Your task to perform on an android device: see tabs open on other devices in the chrome app Image 0: 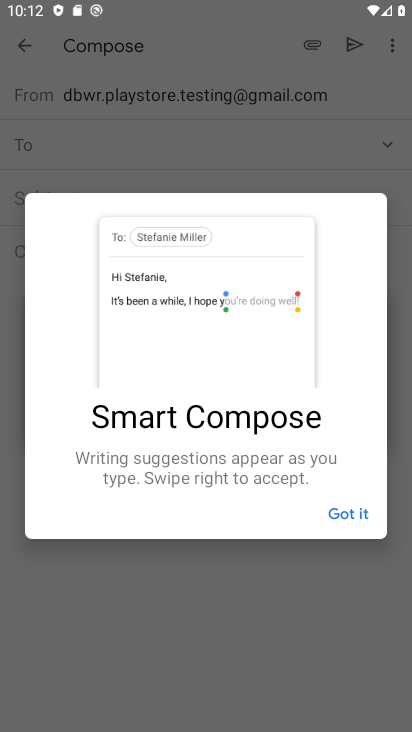
Step 0: press home button
Your task to perform on an android device: see tabs open on other devices in the chrome app Image 1: 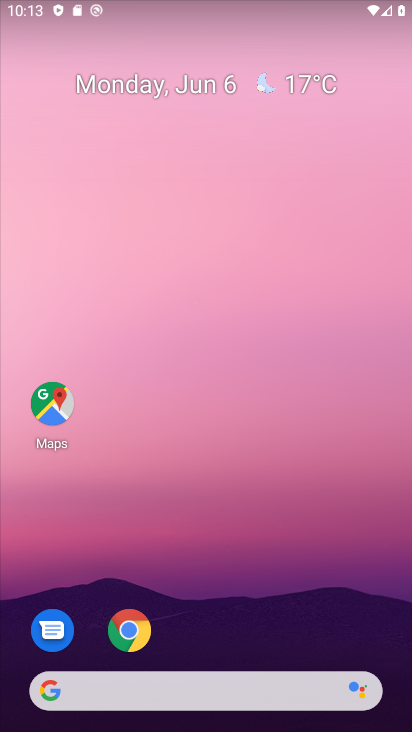
Step 1: drag from (368, 634) to (368, 101)
Your task to perform on an android device: see tabs open on other devices in the chrome app Image 2: 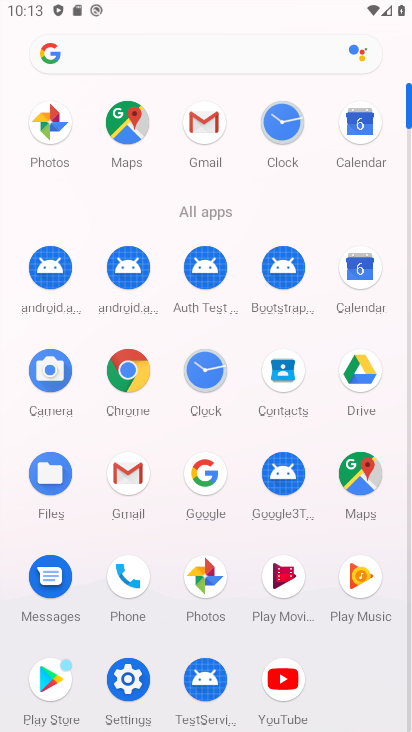
Step 2: click (137, 393)
Your task to perform on an android device: see tabs open on other devices in the chrome app Image 3: 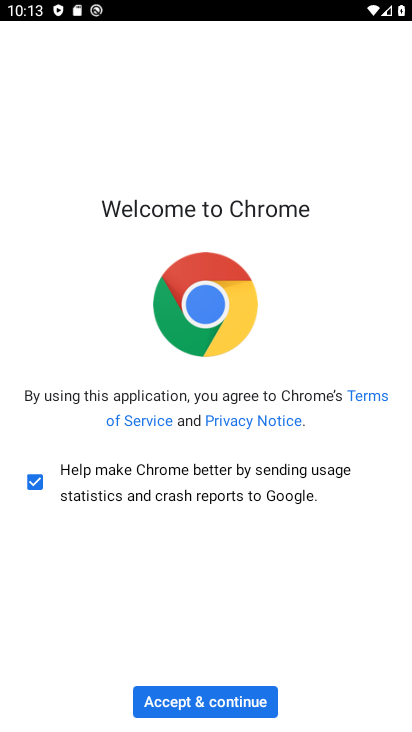
Step 3: click (259, 712)
Your task to perform on an android device: see tabs open on other devices in the chrome app Image 4: 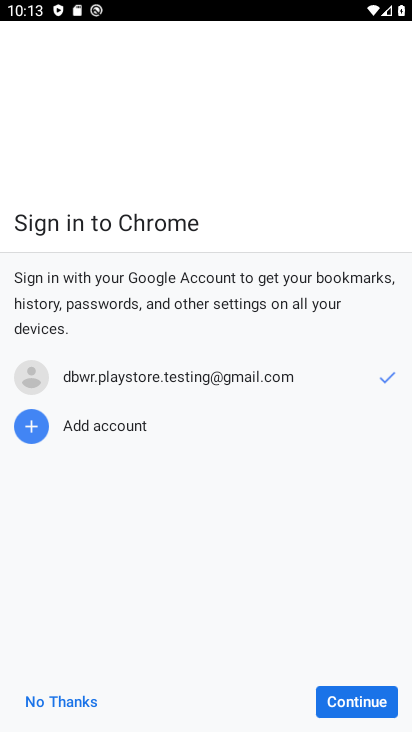
Step 4: click (339, 704)
Your task to perform on an android device: see tabs open on other devices in the chrome app Image 5: 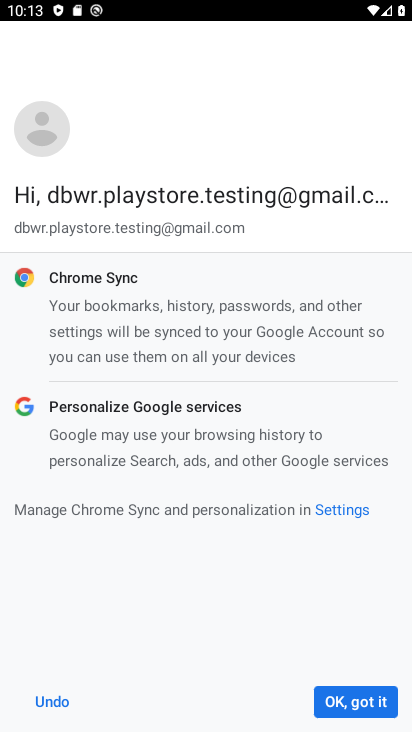
Step 5: click (339, 700)
Your task to perform on an android device: see tabs open on other devices in the chrome app Image 6: 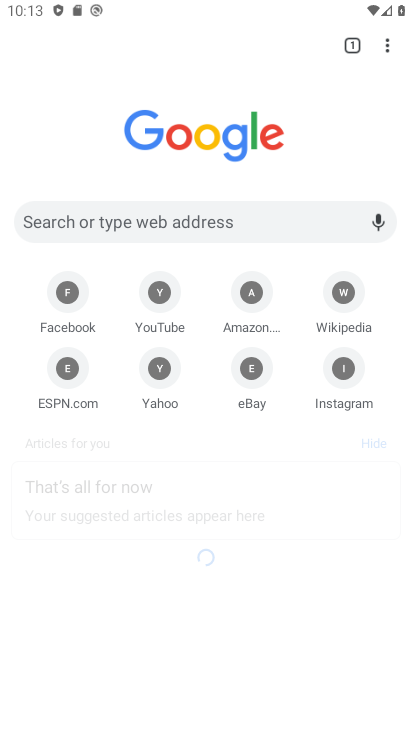
Step 6: click (354, 49)
Your task to perform on an android device: see tabs open on other devices in the chrome app Image 7: 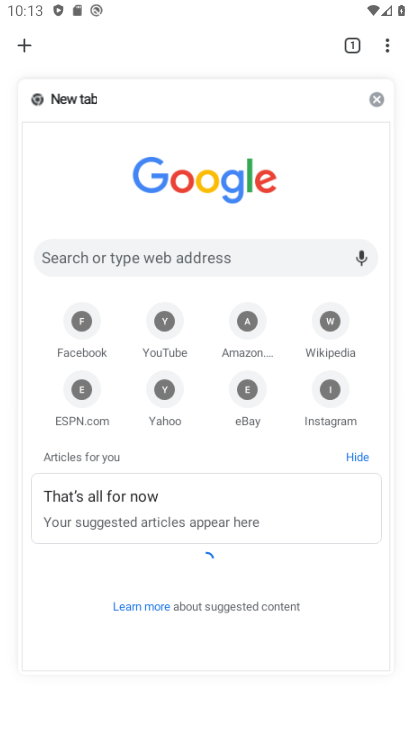
Step 7: click (19, 44)
Your task to perform on an android device: see tabs open on other devices in the chrome app Image 8: 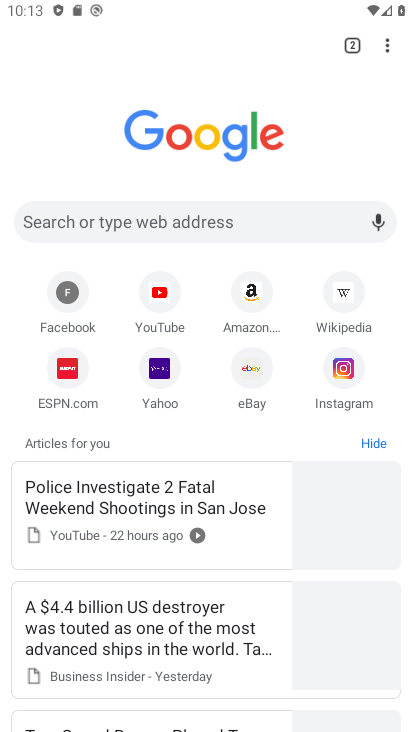
Step 8: task complete